Your task to perform on an android device: turn notification dots on Image 0: 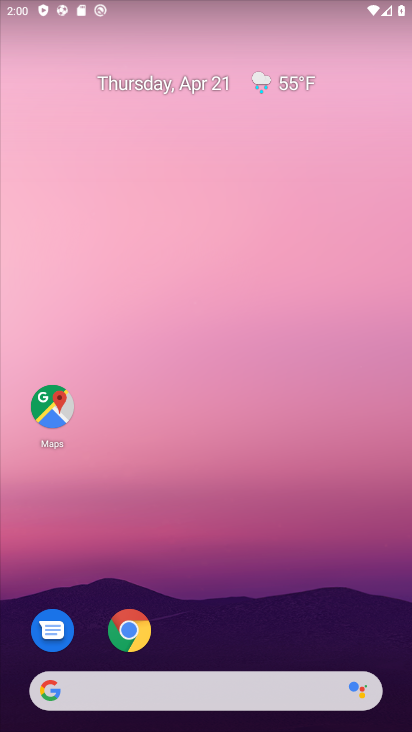
Step 0: drag from (254, 626) to (254, 167)
Your task to perform on an android device: turn notification dots on Image 1: 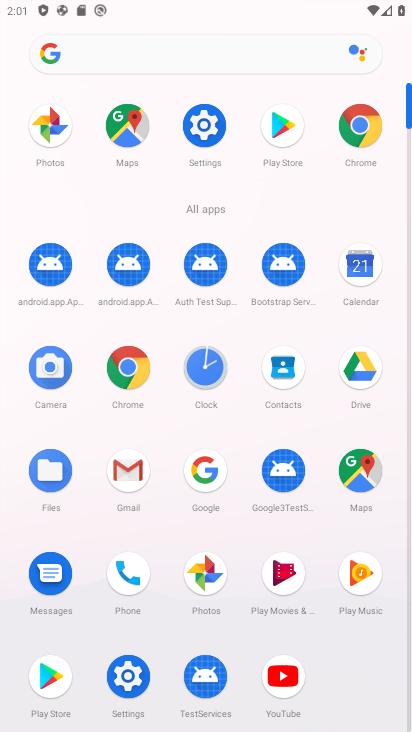
Step 1: click (137, 692)
Your task to perform on an android device: turn notification dots on Image 2: 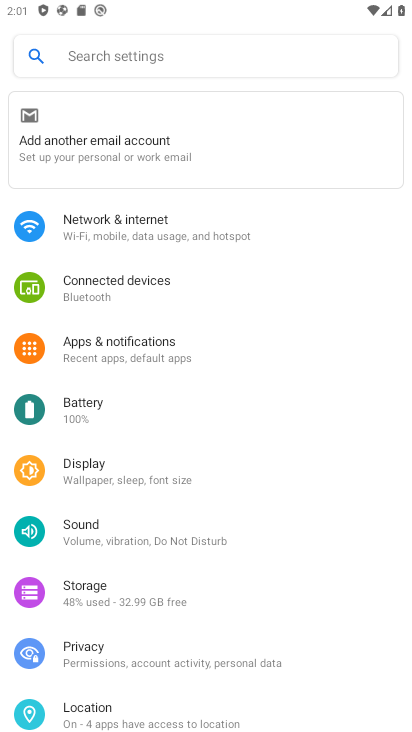
Step 2: click (156, 342)
Your task to perform on an android device: turn notification dots on Image 3: 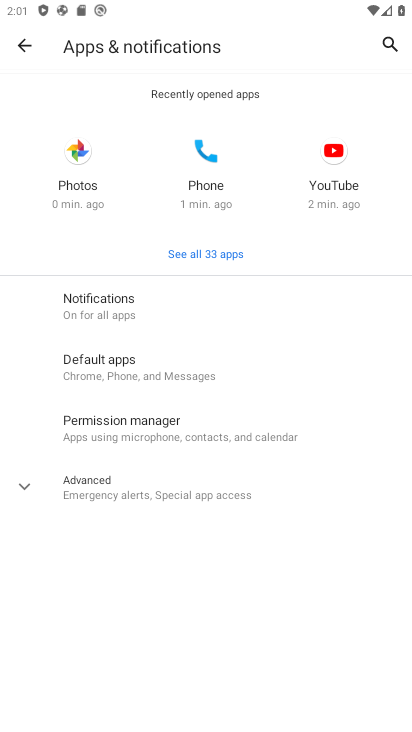
Step 3: click (141, 310)
Your task to perform on an android device: turn notification dots on Image 4: 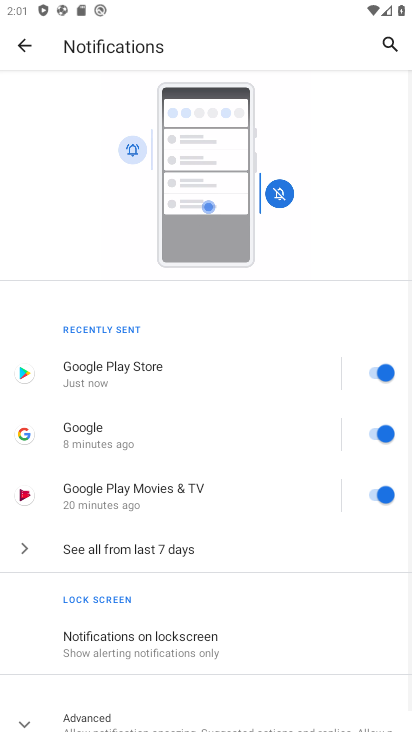
Step 4: drag from (225, 667) to (269, 345)
Your task to perform on an android device: turn notification dots on Image 5: 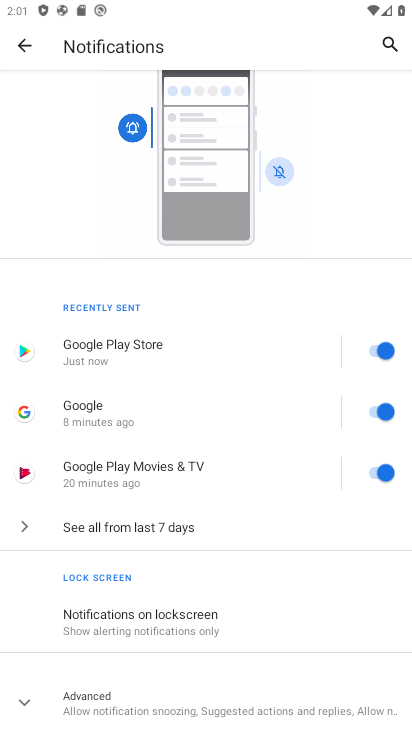
Step 5: click (18, 702)
Your task to perform on an android device: turn notification dots on Image 6: 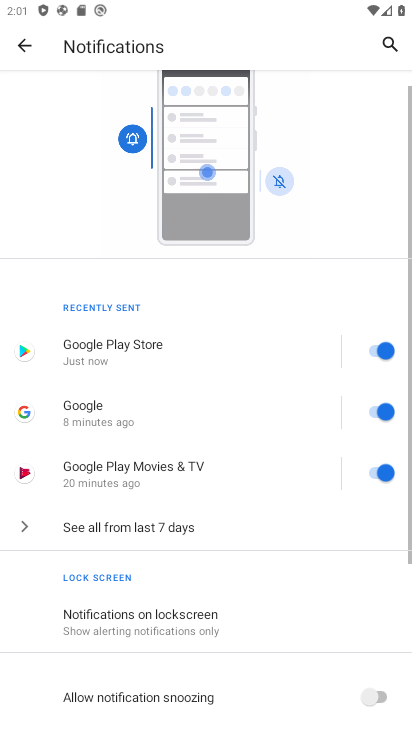
Step 6: drag from (163, 694) to (253, 286)
Your task to perform on an android device: turn notification dots on Image 7: 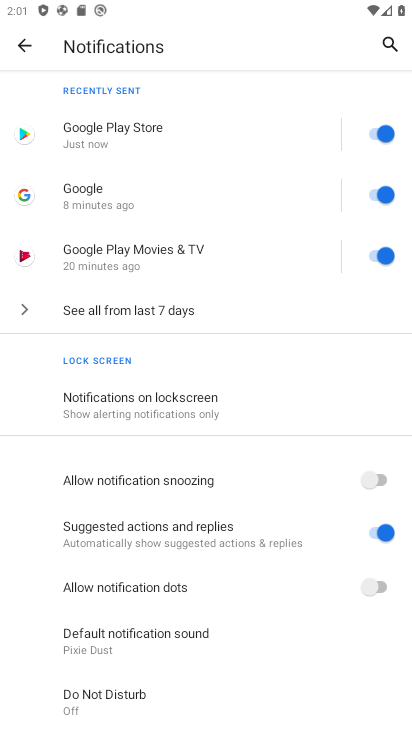
Step 7: click (381, 588)
Your task to perform on an android device: turn notification dots on Image 8: 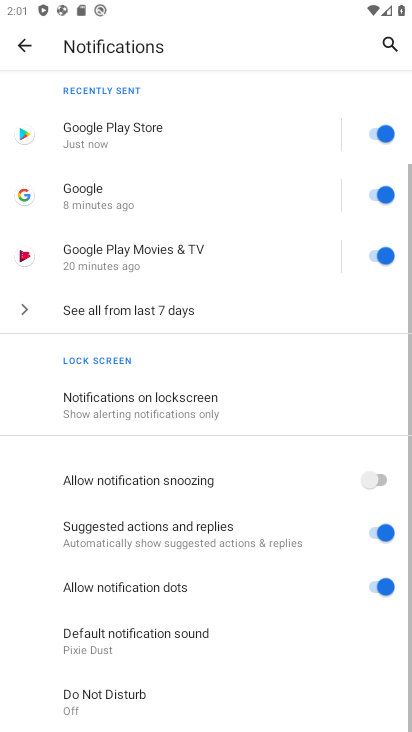
Step 8: task complete